Your task to perform on an android device: What's the weather? Image 0: 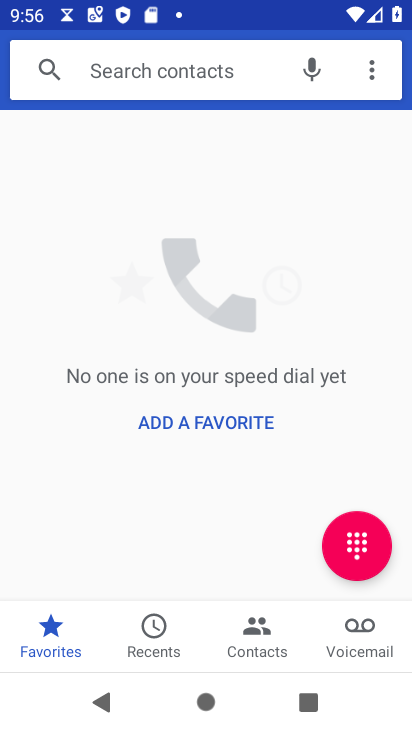
Step 0: press back button
Your task to perform on an android device: What's the weather? Image 1: 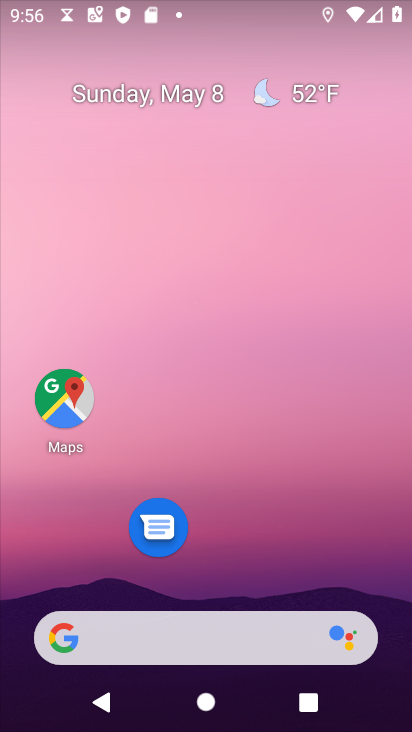
Step 1: drag from (264, 552) to (213, 39)
Your task to perform on an android device: What's the weather? Image 2: 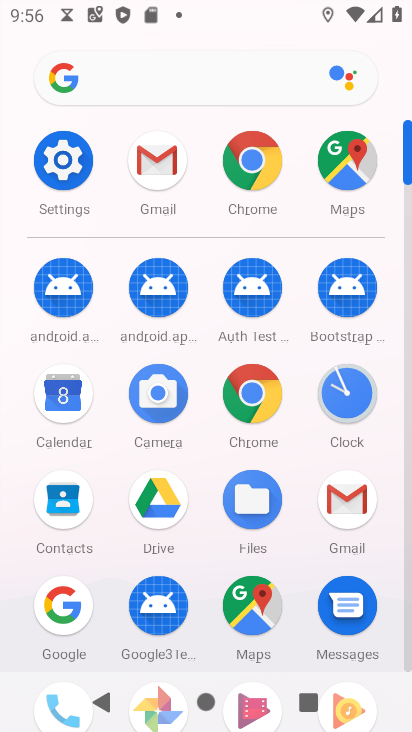
Step 2: click (61, 606)
Your task to perform on an android device: What's the weather? Image 3: 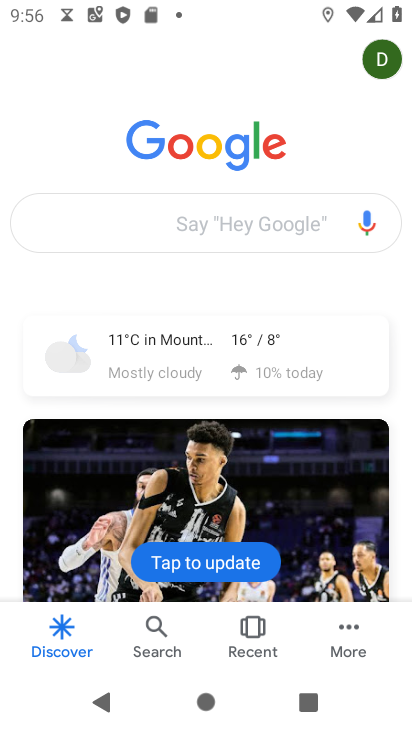
Step 3: click (187, 217)
Your task to perform on an android device: What's the weather? Image 4: 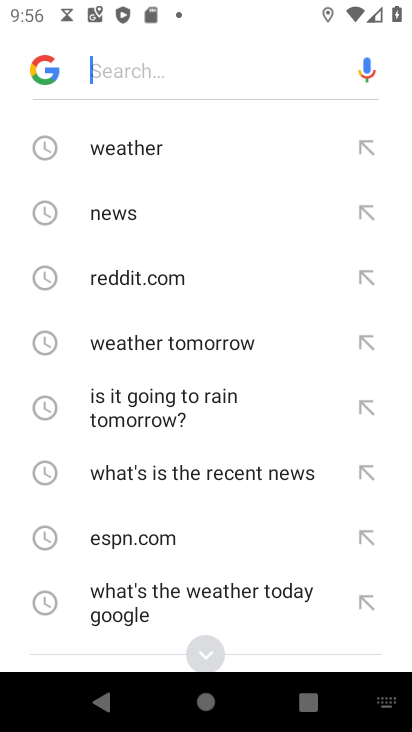
Step 4: click (138, 145)
Your task to perform on an android device: What's the weather? Image 5: 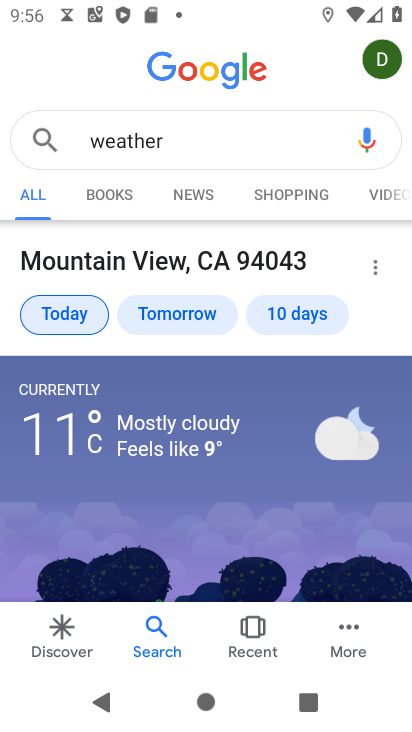
Step 5: task complete